Your task to perform on an android device: Go to Google maps Image 0: 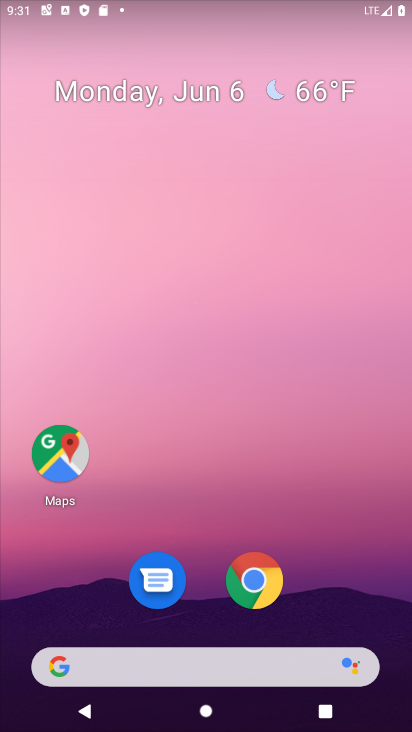
Step 0: drag from (328, 620) to (324, 2)
Your task to perform on an android device: Go to Google maps Image 1: 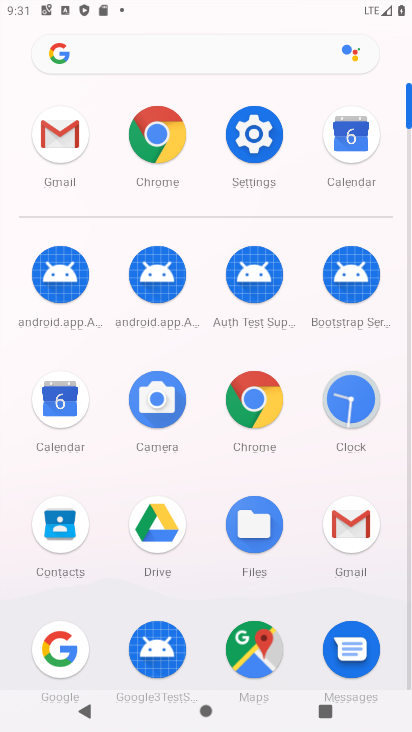
Step 1: click (247, 654)
Your task to perform on an android device: Go to Google maps Image 2: 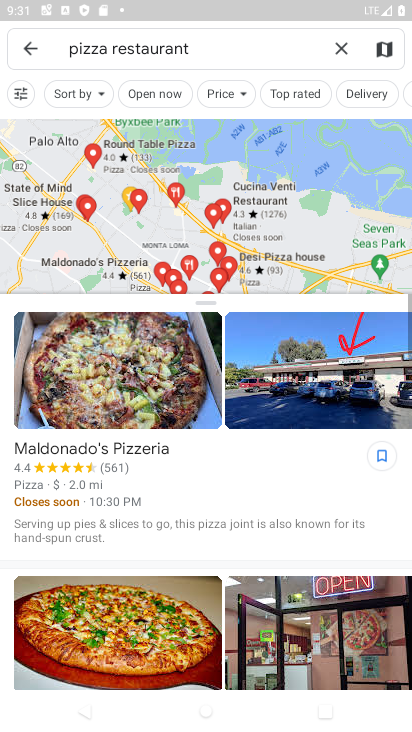
Step 2: task complete